Your task to perform on an android device: Play the last video I watched on Youtube Image 0: 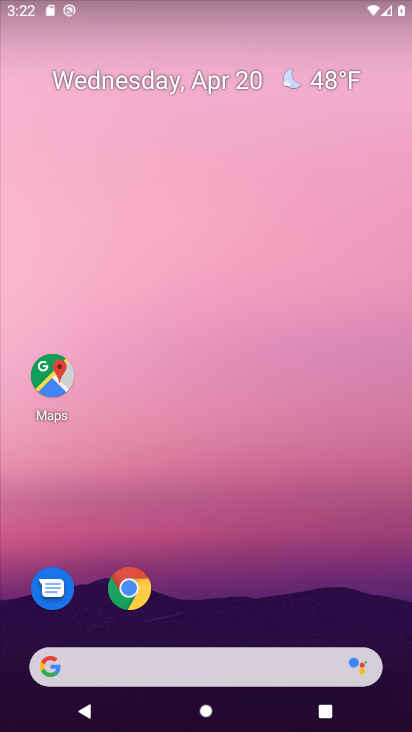
Step 0: drag from (360, 458) to (336, 71)
Your task to perform on an android device: Play the last video I watched on Youtube Image 1: 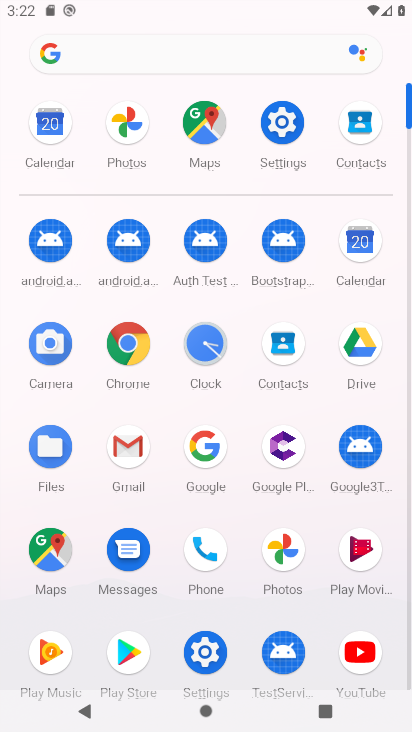
Step 1: click (353, 656)
Your task to perform on an android device: Play the last video I watched on Youtube Image 2: 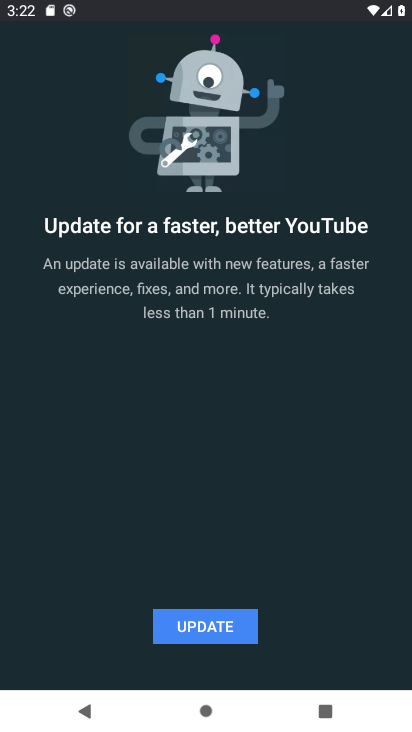
Step 2: click (208, 622)
Your task to perform on an android device: Play the last video I watched on Youtube Image 3: 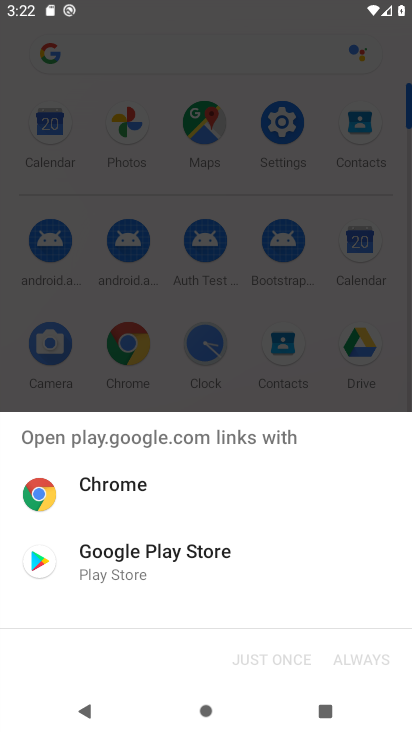
Step 3: click (124, 548)
Your task to perform on an android device: Play the last video I watched on Youtube Image 4: 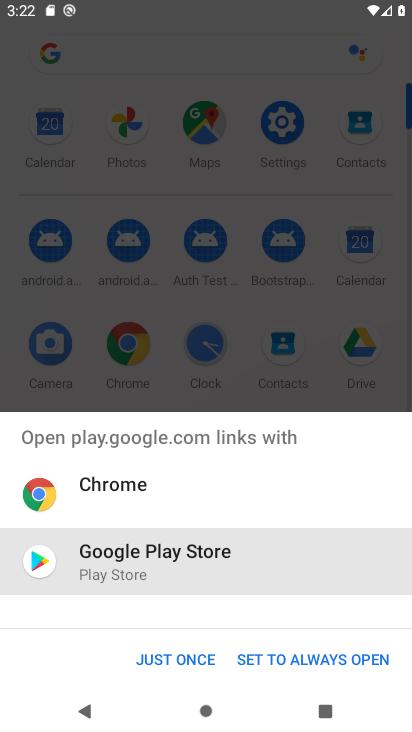
Step 4: click (195, 651)
Your task to perform on an android device: Play the last video I watched on Youtube Image 5: 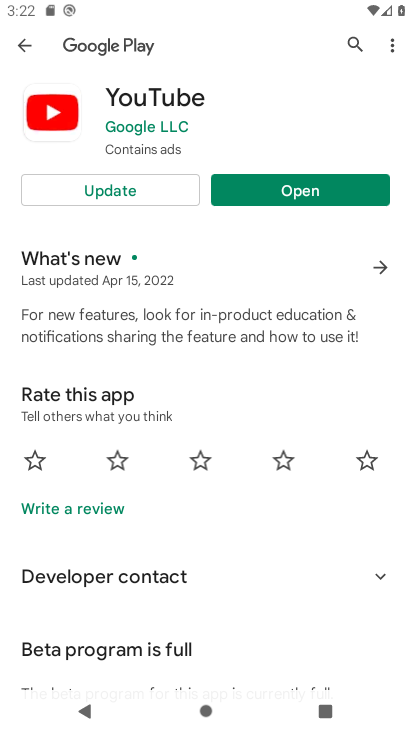
Step 5: click (131, 188)
Your task to perform on an android device: Play the last video I watched on Youtube Image 6: 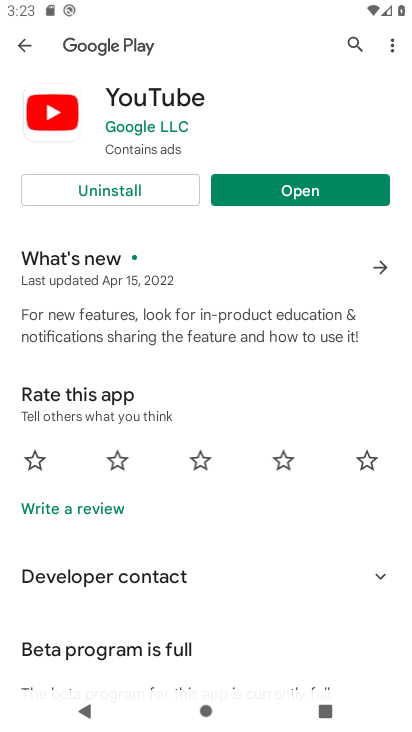
Step 6: click (358, 189)
Your task to perform on an android device: Play the last video I watched on Youtube Image 7: 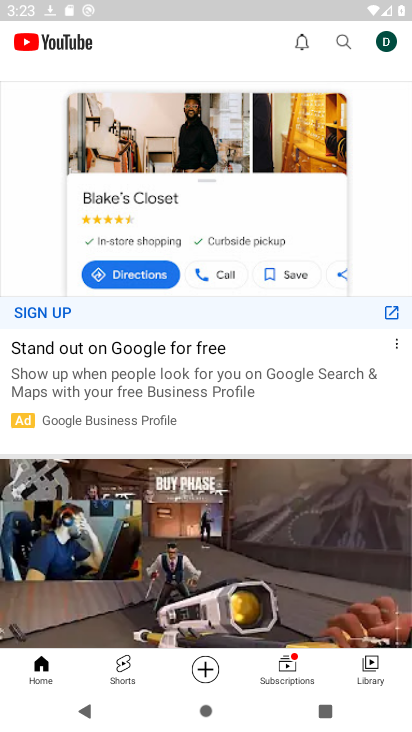
Step 7: click (374, 673)
Your task to perform on an android device: Play the last video I watched on Youtube Image 8: 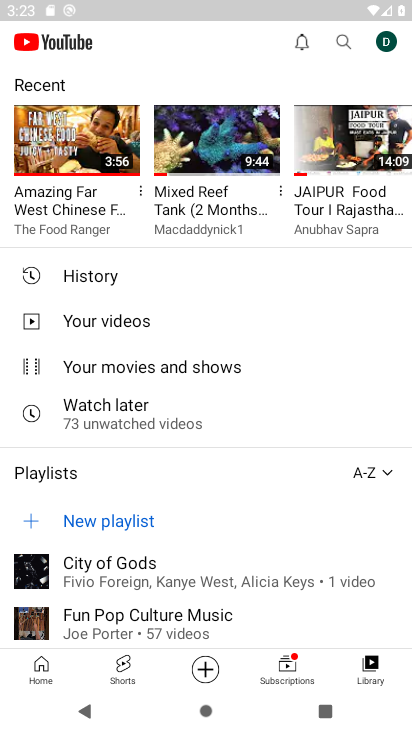
Step 8: click (69, 126)
Your task to perform on an android device: Play the last video I watched on Youtube Image 9: 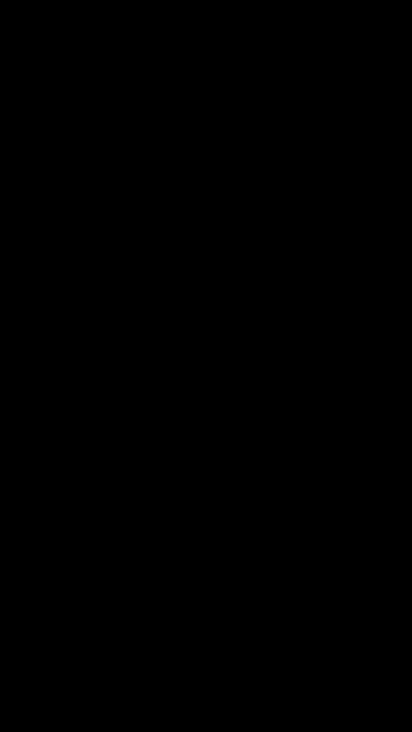
Step 9: task complete